Your task to perform on an android device: Show me popular videos on Youtube Image 0: 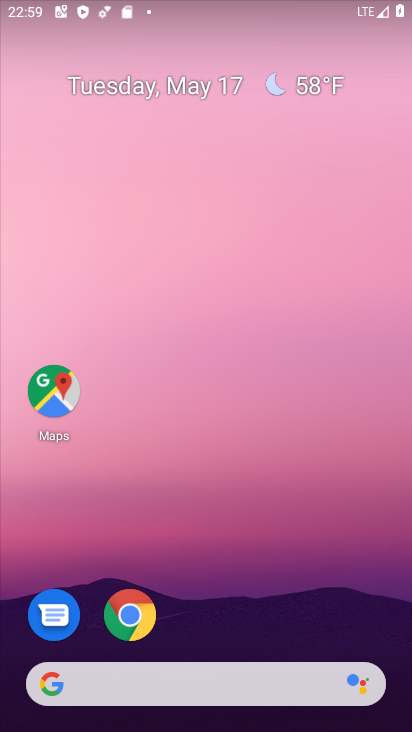
Step 0: drag from (254, 628) to (254, 250)
Your task to perform on an android device: Show me popular videos on Youtube Image 1: 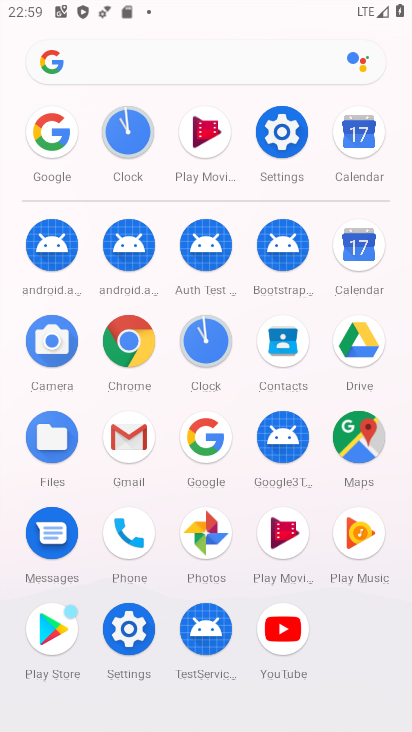
Step 1: click (264, 643)
Your task to perform on an android device: Show me popular videos on Youtube Image 2: 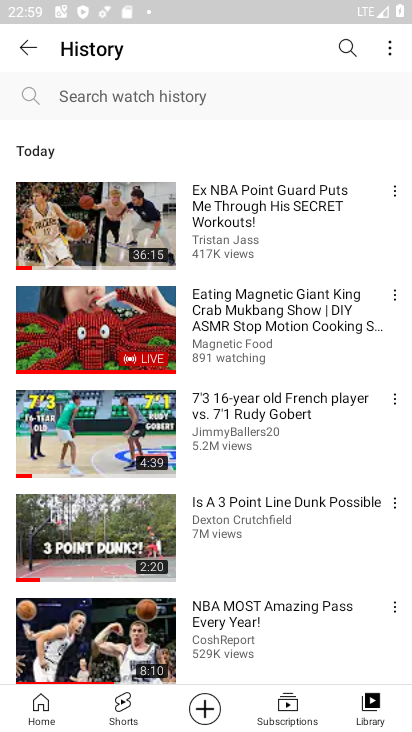
Step 2: click (35, 42)
Your task to perform on an android device: Show me popular videos on Youtube Image 3: 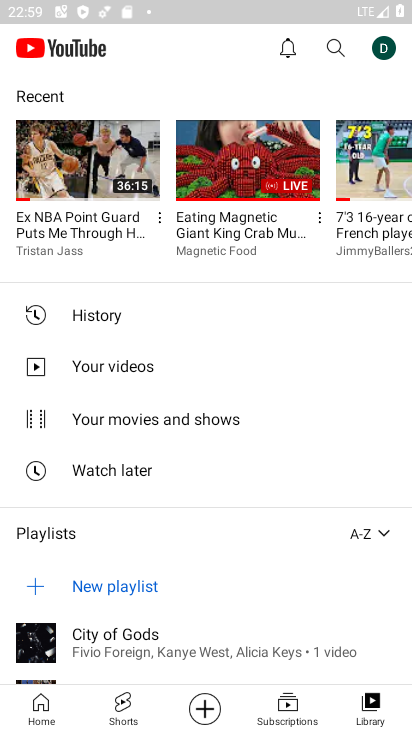
Step 3: click (333, 44)
Your task to perform on an android device: Show me popular videos on Youtube Image 4: 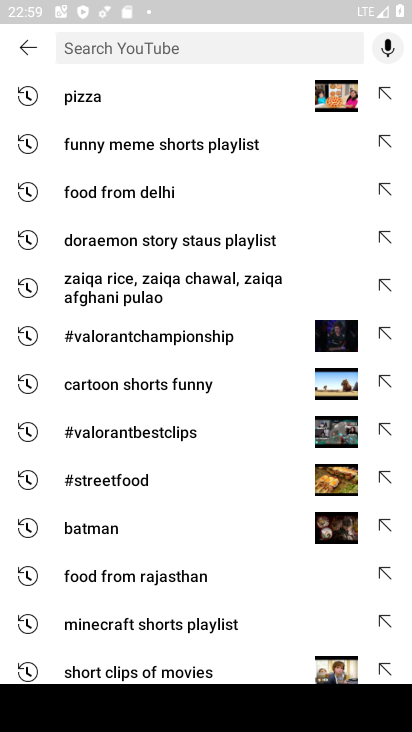
Step 4: type " popular videos "
Your task to perform on an android device: Show me popular videos on Youtube Image 5: 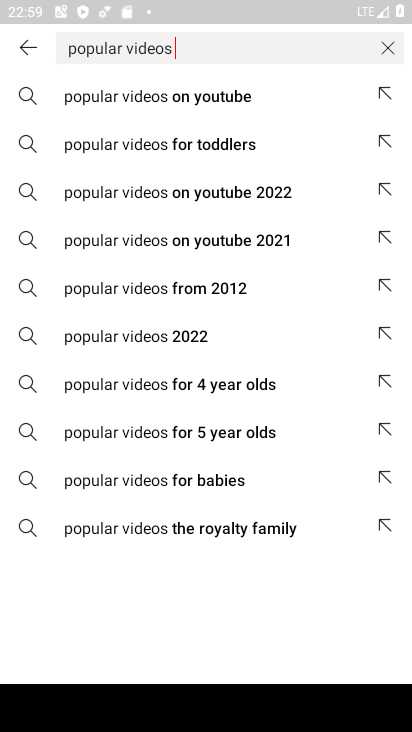
Step 5: click (189, 99)
Your task to perform on an android device: Show me popular videos on Youtube Image 6: 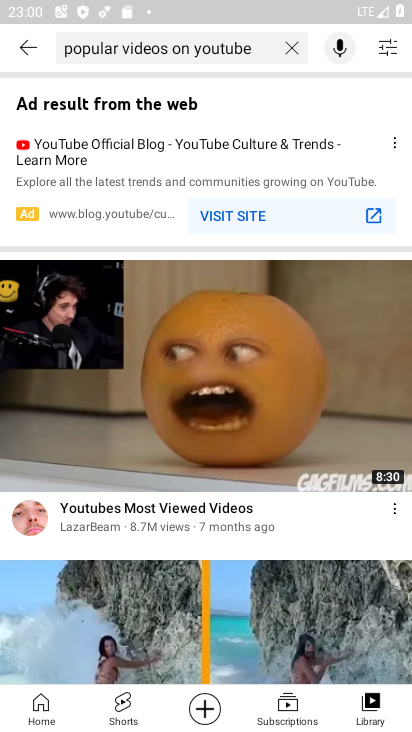
Step 6: task complete